Your task to perform on an android device: turn off notifications settings in the gmail app Image 0: 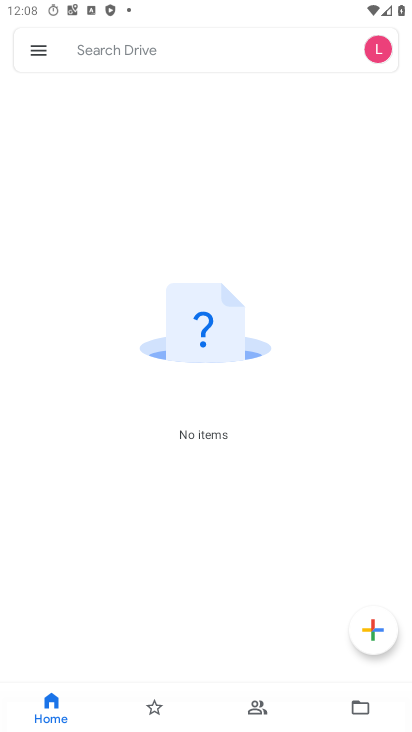
Step 0: press home button
Your task to perform on an android device: turn off notifications settings in the gmail app Image 1: 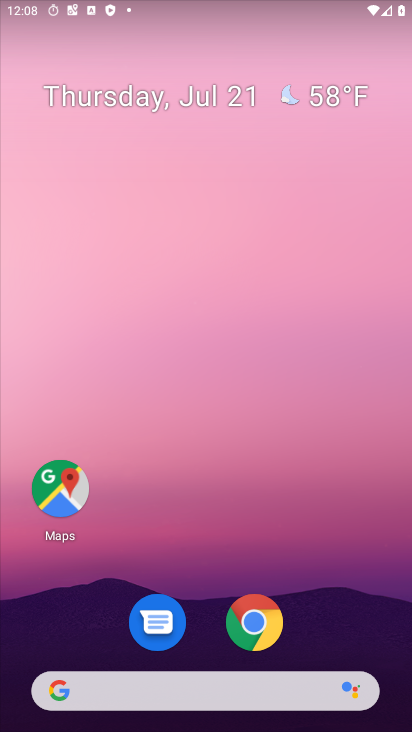
Step 1: drag from (83, 528) to (280, 41)
Your task to perform on an android device: turn off notifications settings in the gmail app Image 2: 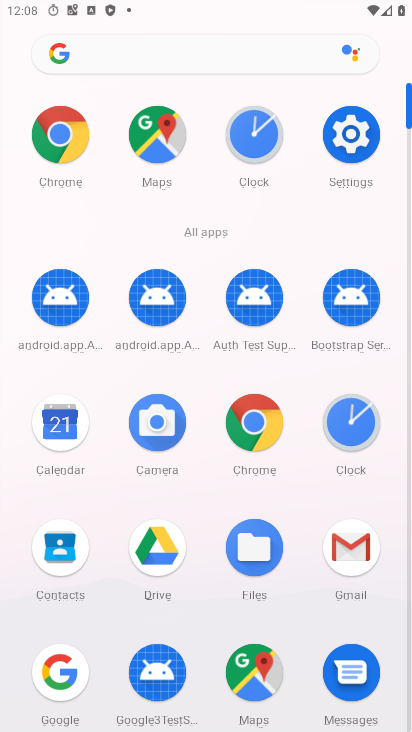
Step 2: click (360, 551)
Your task to perform on an android device: turn off notifications settings in the gmail app Image 3: 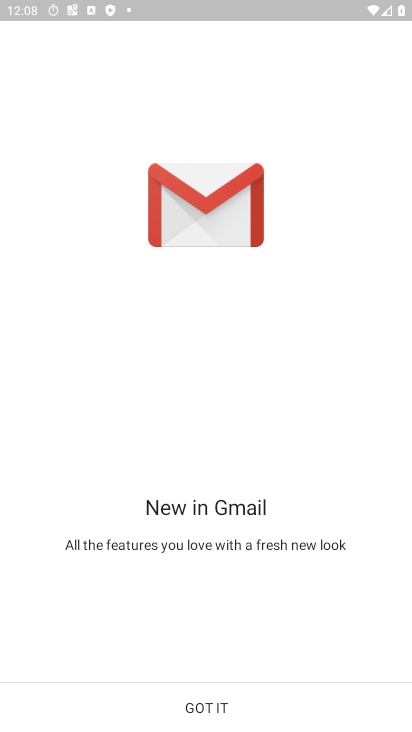
Step 3: click (198, 713)
Your task to perform on an android device: turn off notifications settings in the gmail app Image 4: 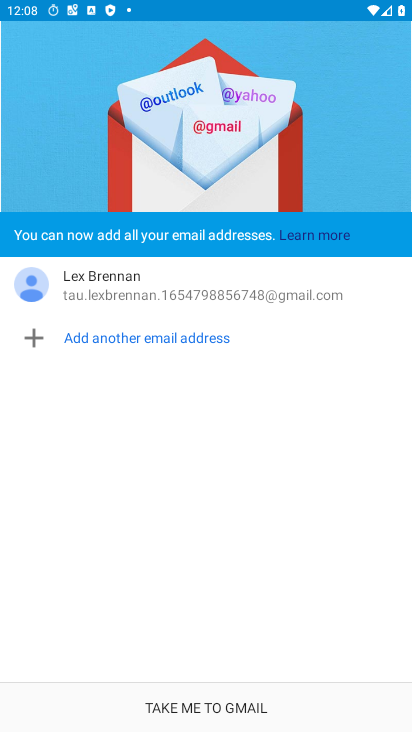
Step 4: click (177, 701)
Your task to perform on an android device: turn off notifications settings in the gmail app Image 5: 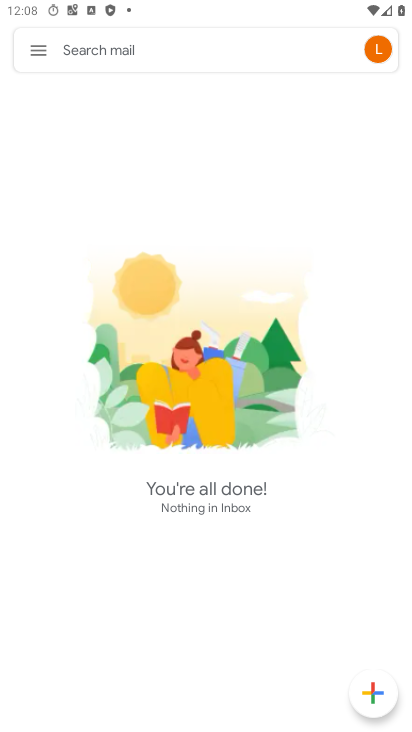
Step 5: click (40, 53)
Your task to perform on an android device: turn off notifications settings in the gmail app Image 6: 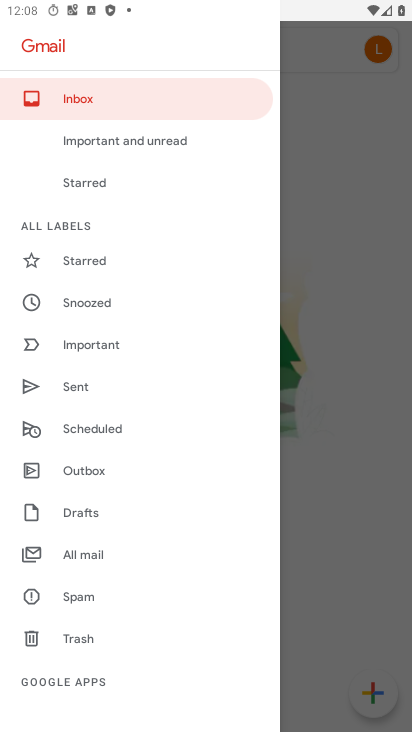
Step 6: drag from (127, 651) to (194, 369)
Your task to perform on an android device: turn off notifications settings in the gmail app Image 7: 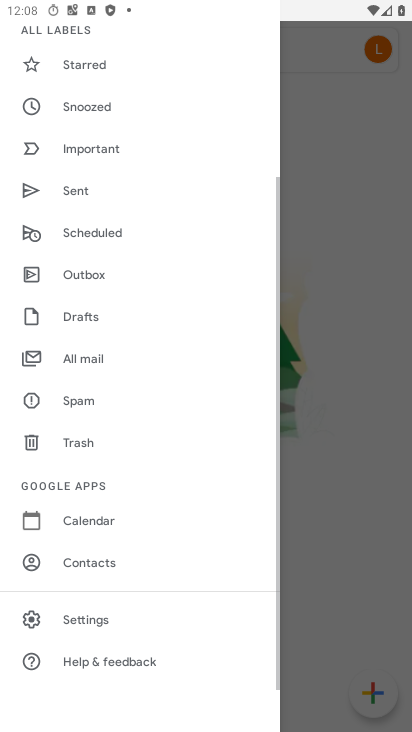
Step 7: click (97, 625)
Your task to perform on an android device: turn off notifications settings in the gmail app Image 8: 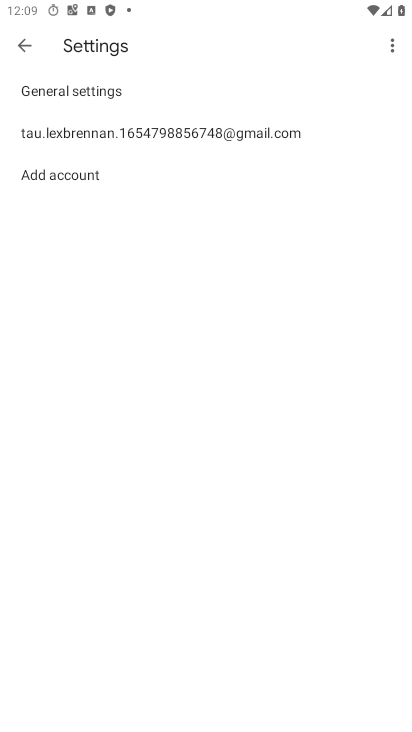
Step 8: click (62, 100)
Your task to perform on an android device: turn off notifications settings in the gmail app Image 9: 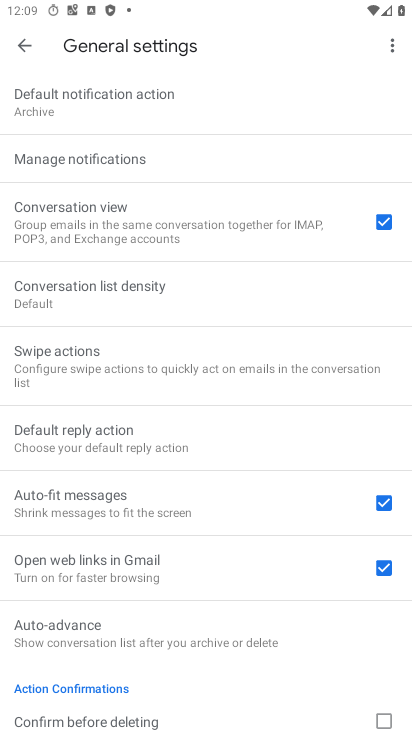
Step 9: click (99, 166)
Your task to perform on an android device: turn off notifications settings in the gmail app Image 10: 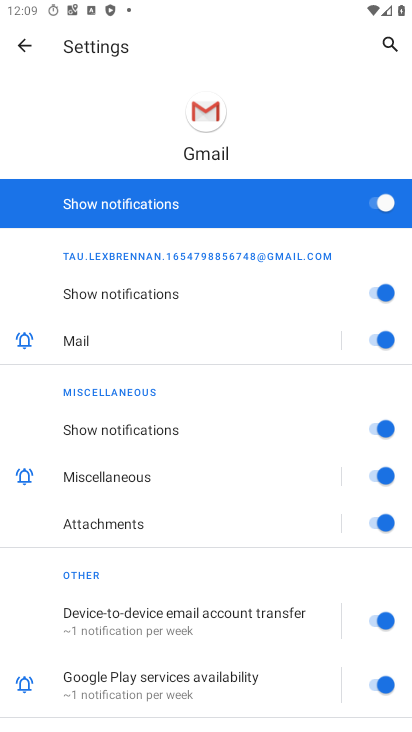
Step 10: click (386, 205)
Your task to perform on an android device: turn off notifications settings in the gmail app Image 11: 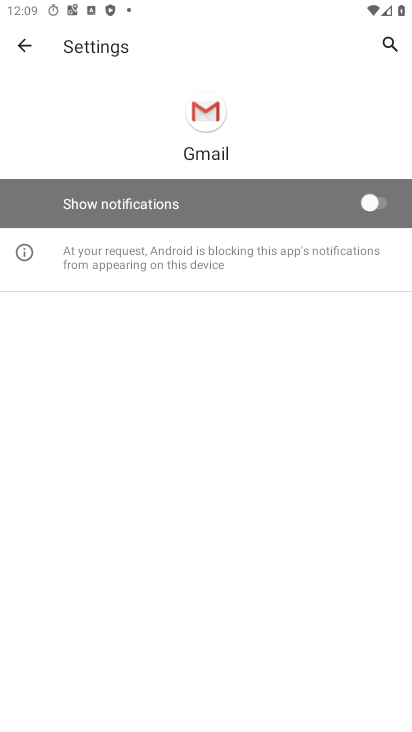
Step 11: task complete